Your task to perform on an android device: Go to internet settings Image 0: 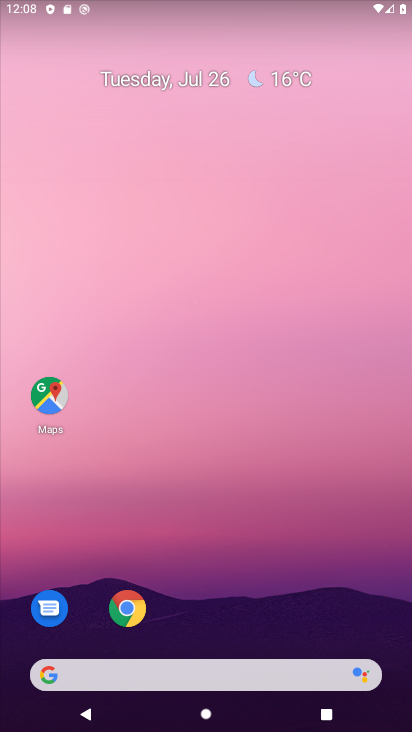
Step 0: drag from (296, 626) to (275, 102)
Your task to perform on an android device: Go to internet settings Image 1: 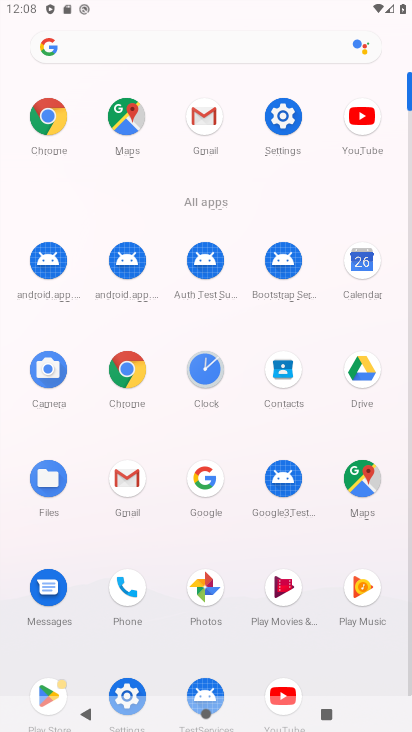
Step 1: click (286, 111)
Your task to perform on an android device: Go to internet settings Image 2: 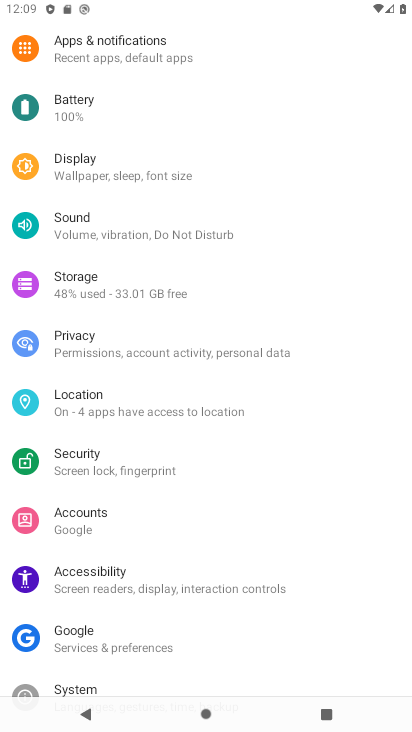
Step 2: click (179, 607)
Your task to perform on an android device: Go to internet settings Image 3: 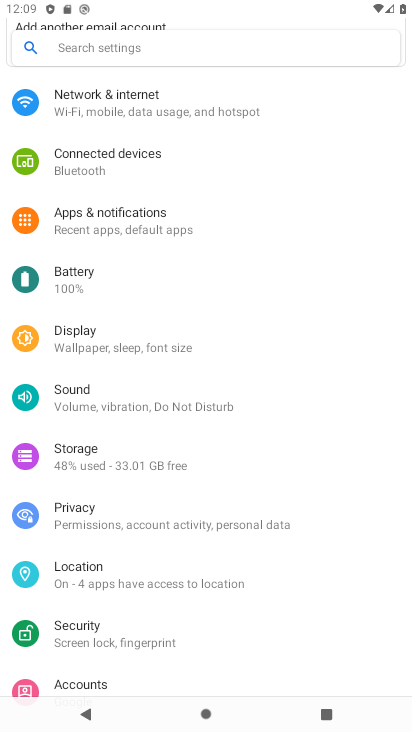
Step 3: click (206, 100)
Your task to perform on an android device: Go to internet settings Image 4: 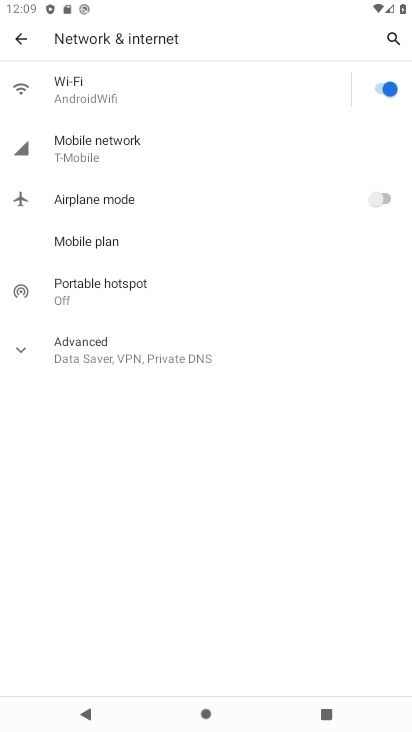
Step 4: task complete